Your task to perform on an android device: set default search engine in the chrome app Image 0: 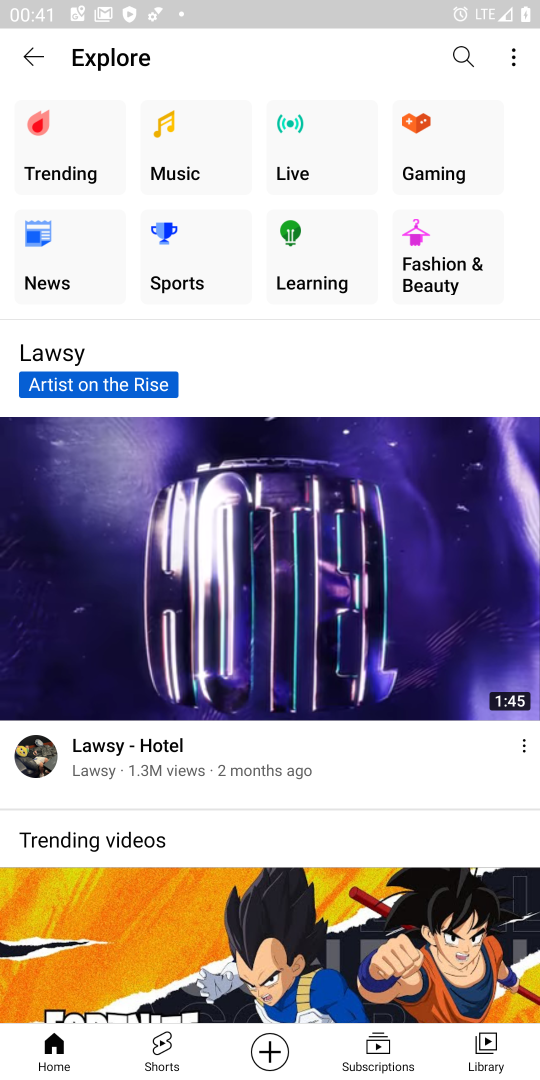
Step 0: press home button
Your task to perform on an android device: set default search engine in the chrome app Image 1: 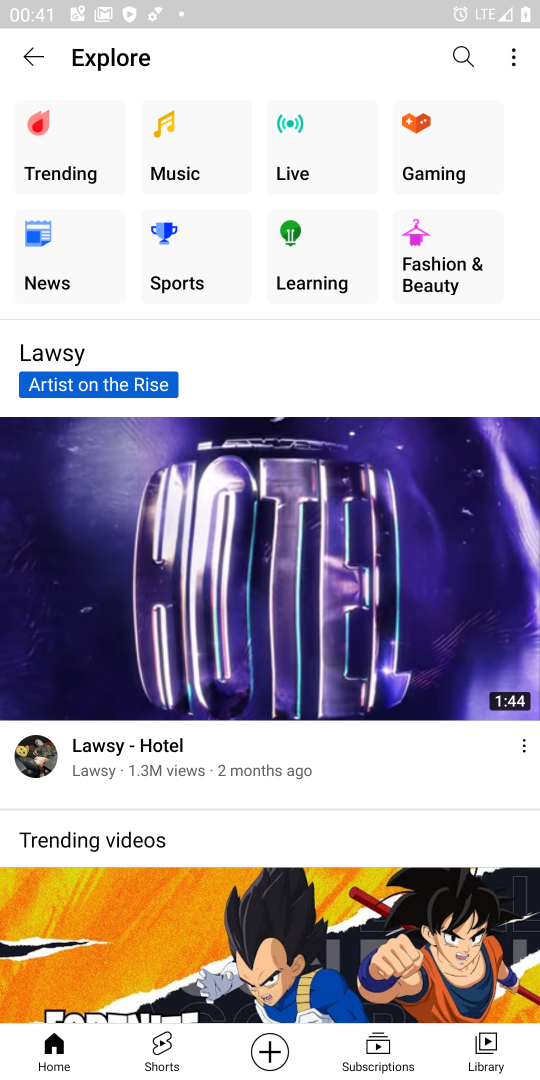
Step 1: press home button
Your task to perform on an android device: set default search engine in the chrome app Image 2: 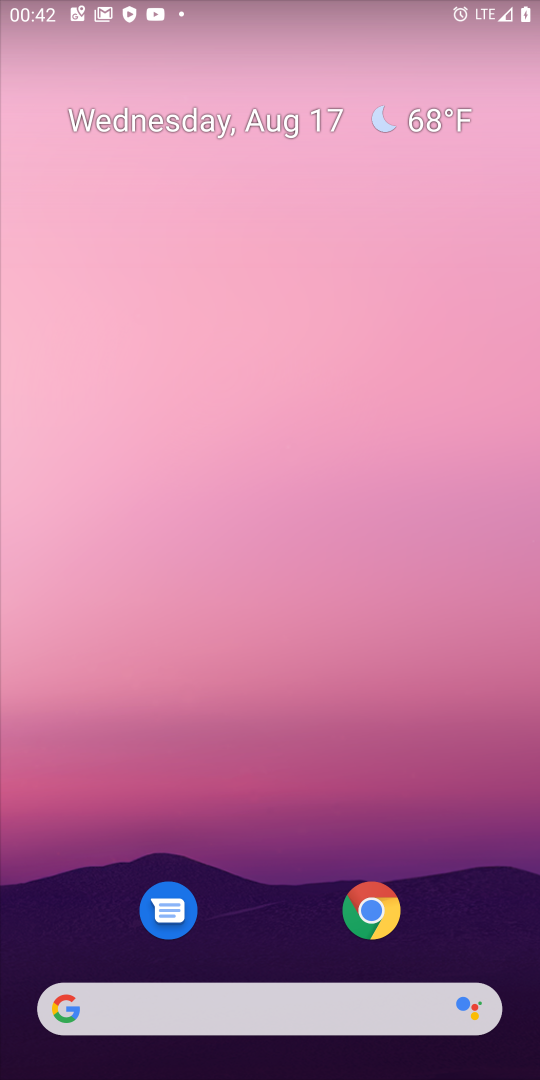
Step 2: drag from (222, 918) to (218, 52)
Your task to perform on an android device: set default search engine in the chrome app Image 3: 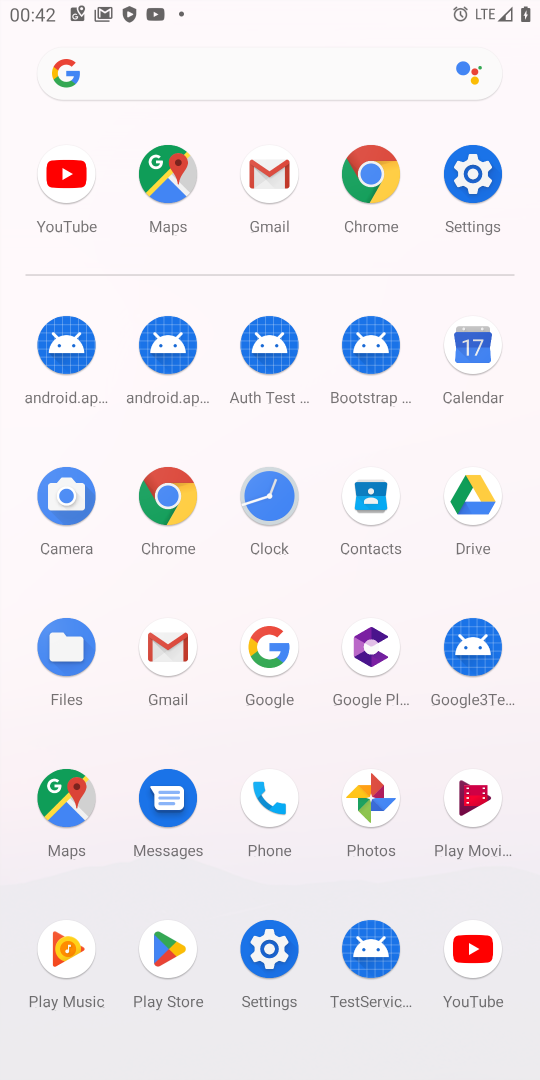
Step 3: click (166, 495)
Your task to perform on an android device: set default search engine in the chrome app Image 4: 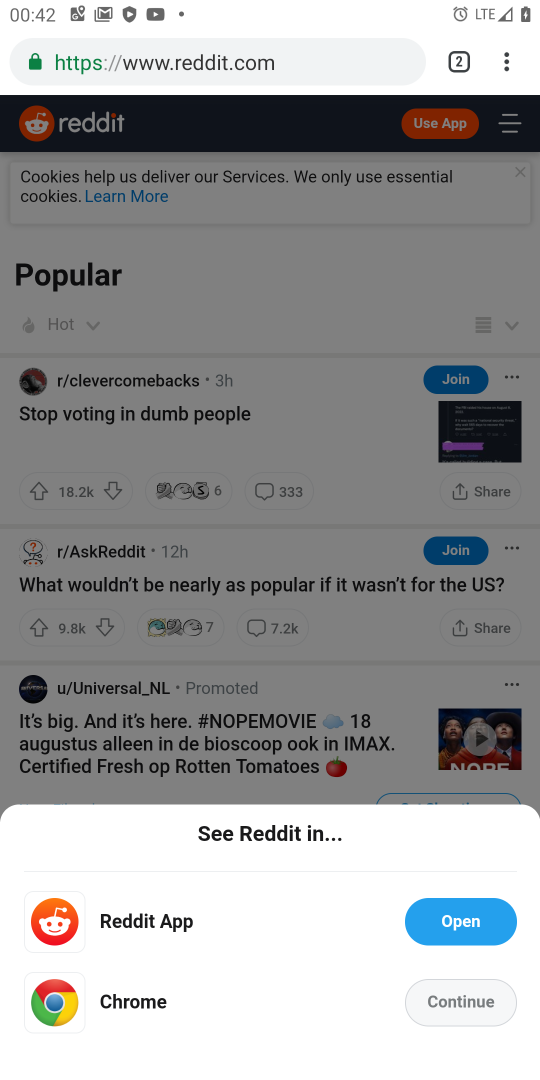
Step 4: drag from (508, 60) to (302, 813)
Your task to perform on an android device: set default search engine in the chrome app Image 5: 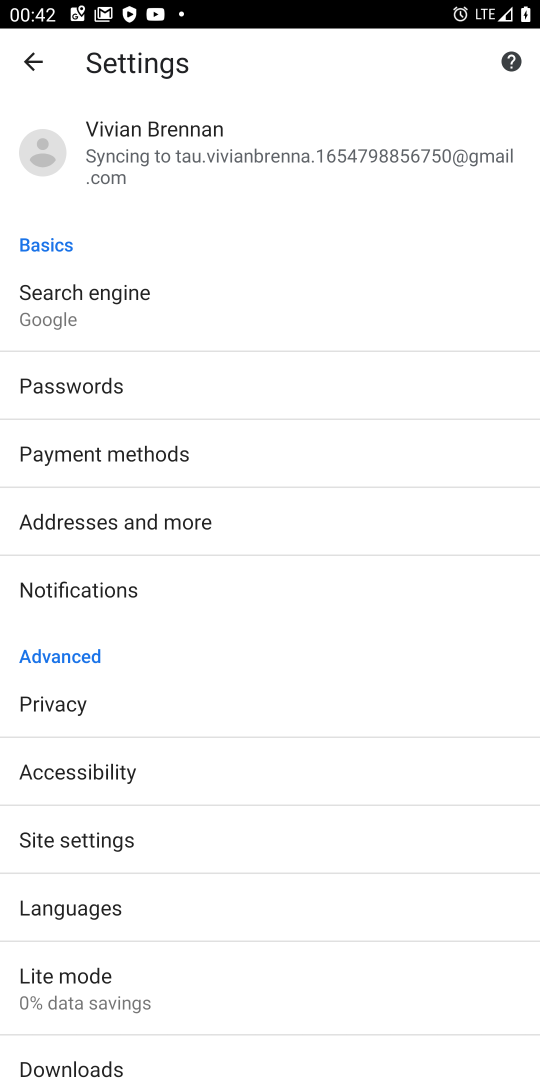
Step 5: click (140, 296)
Your task to perform on an android device: set default search engine in the chrome app Image 6: 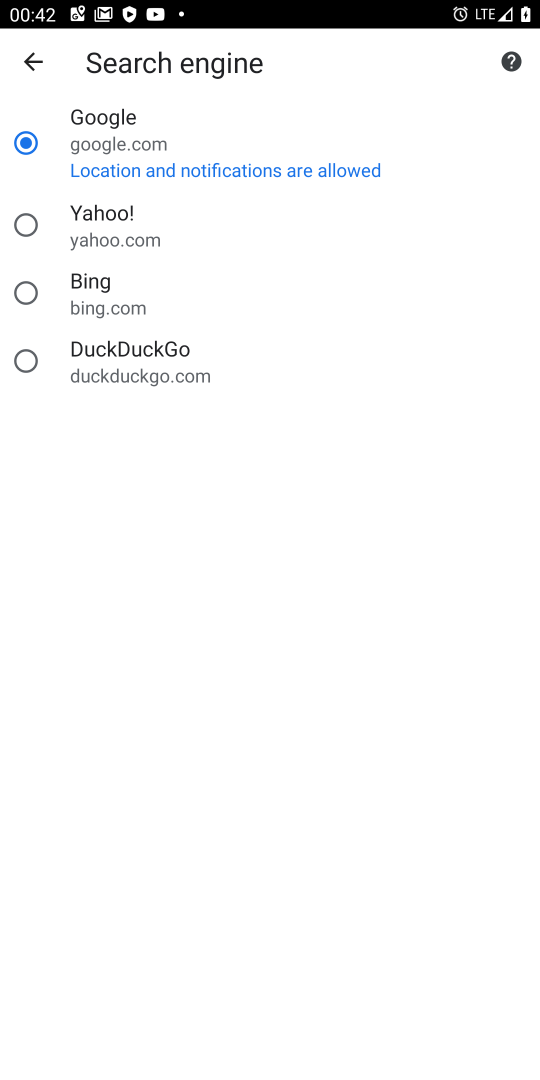
Step 6: task complete